Your task to perform on an android device: visit the assistant section in the google photos Image 0: 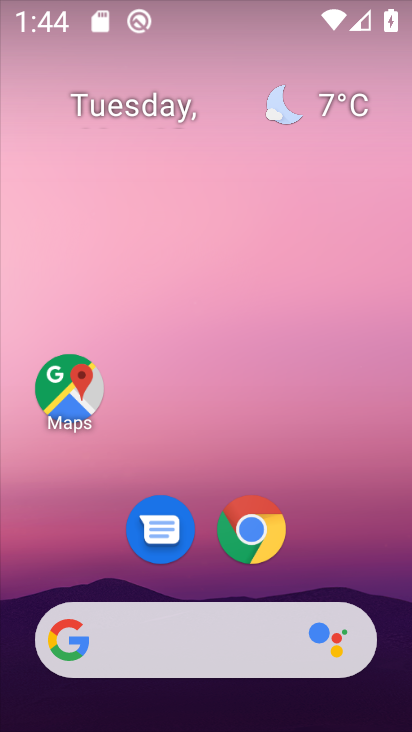
Step 0: drag from (335, 566) to (243, 35)
Your task to perform on an android device: visit the assistant section in the google photos Image 1: 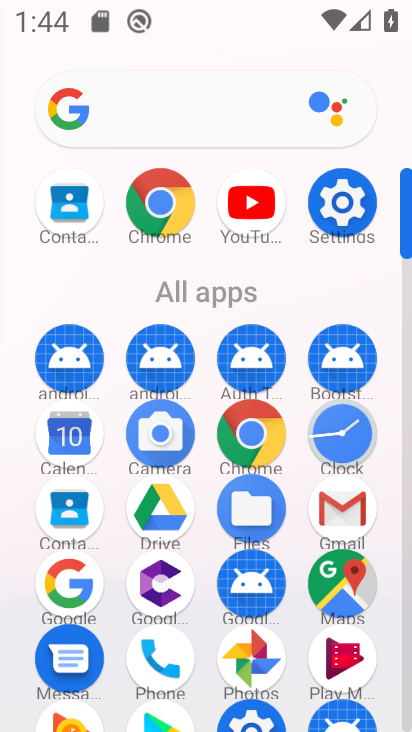
Step 1: drag from (210, 559) to (214, 180)
Your task to perform on an android device: visit the assistant section in the google photos Image 2: 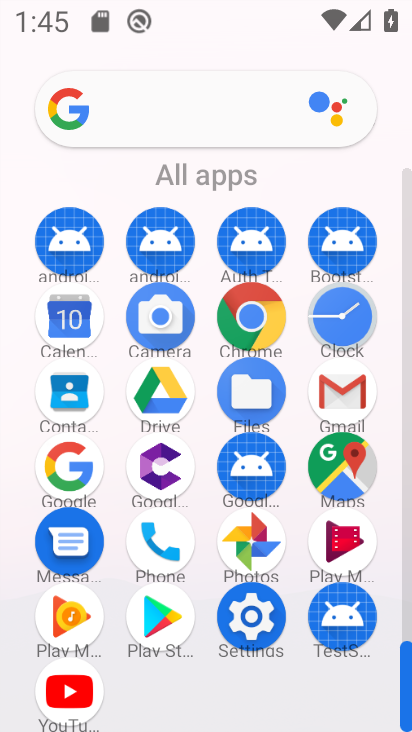
Step 2: click (252, 540)
Your task to perform on an android device: visit the assistant section in the google photos Image 3: 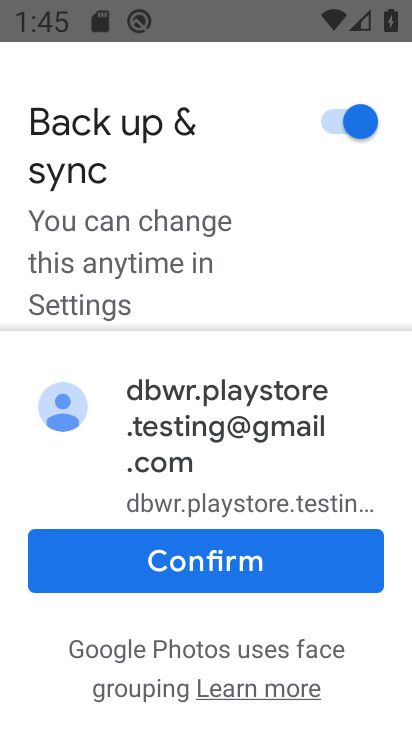
Step 3: click (218, 562)
Your task to perform on an android device: visit the assistant section in the google photos Image 4: 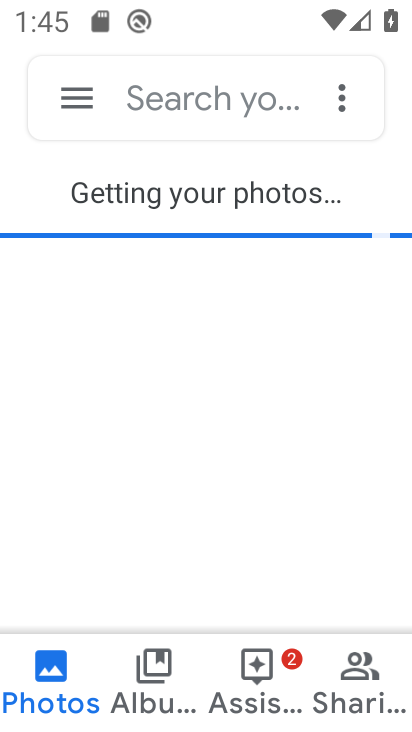
Step 4: click (266, 667)
Your task to perform on an android device: visit the assistant section in the google photos Image 5: 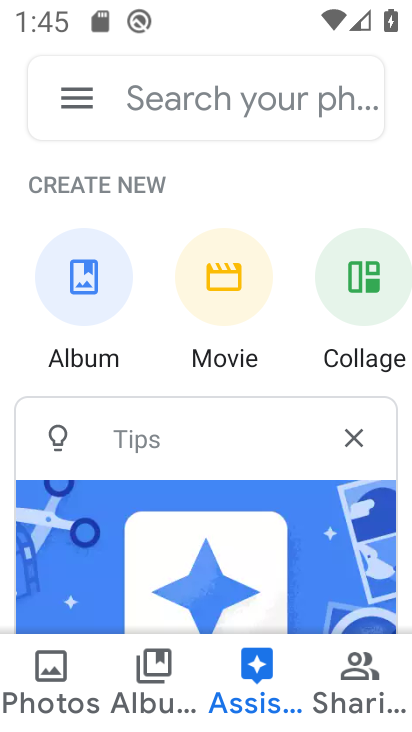
Step 5: task complete